Your task to perform on an android device: View the shopping cart on amazon.com. Search for logitech g903 on amazon.com, select the first entry, add it to the cart, then select checkout. Image 0: 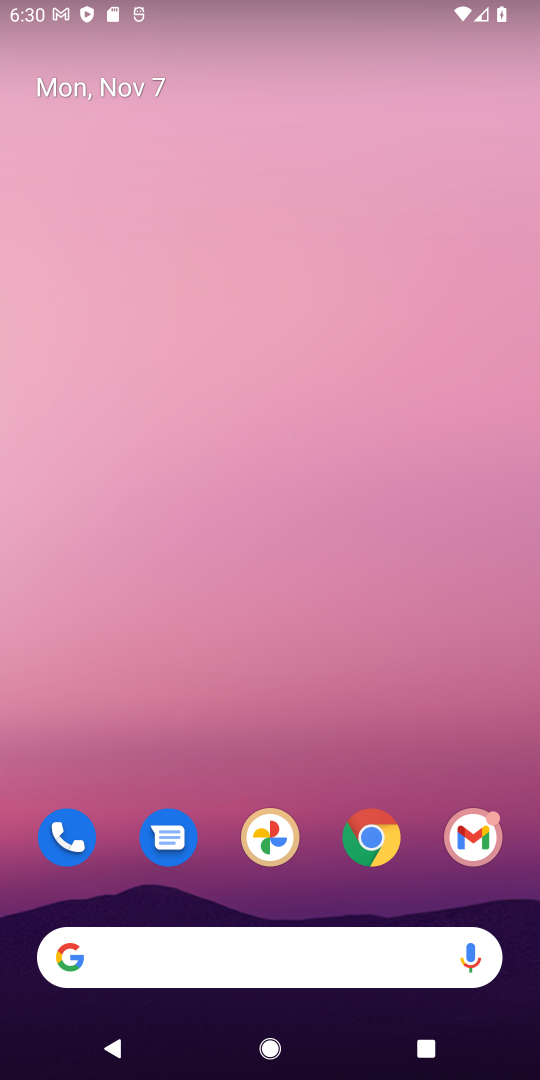
Step 0: click (369, 843)
Your task to perform on an android device: View the shopping cart on amazon.com. Search for logitech g903 on amazon.com, select the first entry, add it to the cart, then select checkout. Image 1: 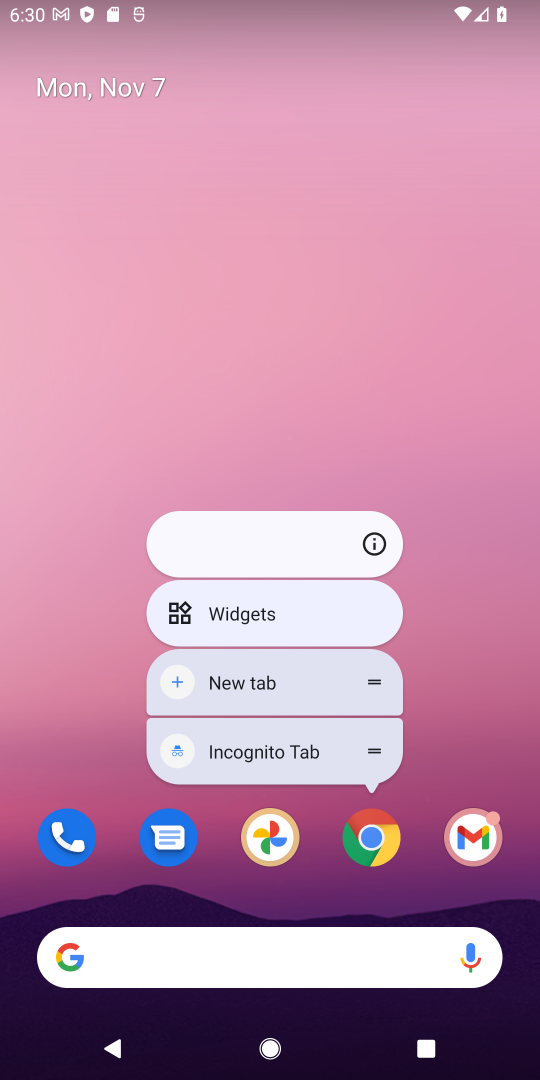
Step 1: click (381, 840)
Your task to perform on an android device: View the shopping cart on amazon.com. Search for logitech g903 on amazon.com, select the first entry, add it to the cart, then select checkout. Image 2: 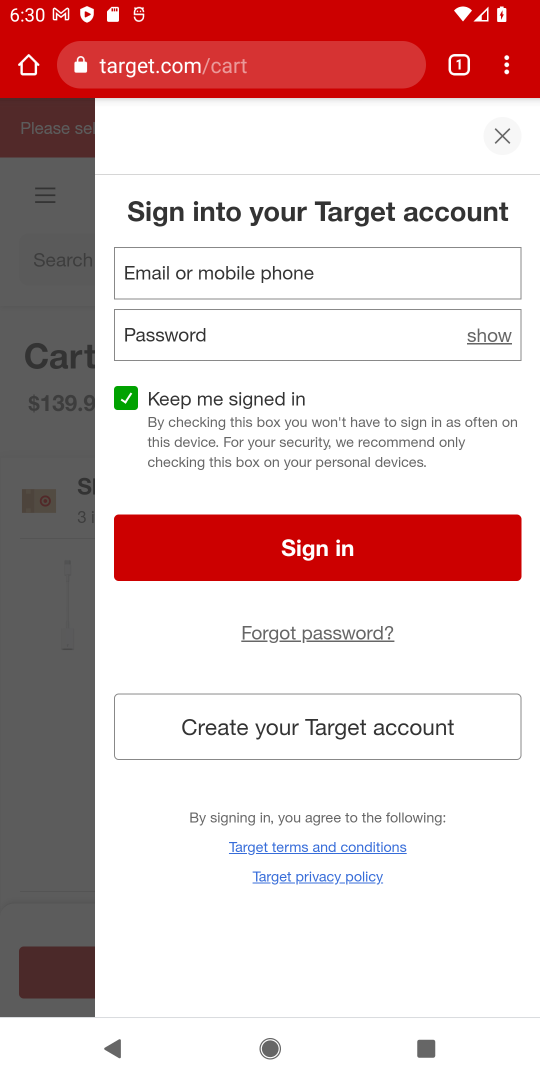
Step 2: click (263, 73)
Your task to perform on an android device: View the shopping cart on amazon.com. Search for logitech g903 on amazon.com, select the first entry, add it to the cart, then select checkout. Image 3: 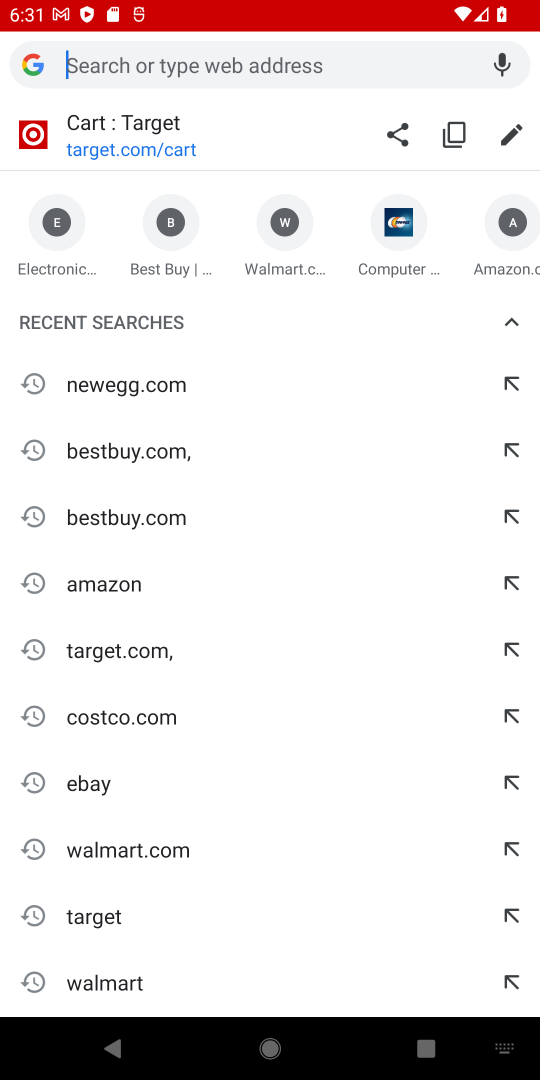
Step 3: type "amazon.com"
Your task to perform on an android device: View the shopping cart on amazon.com. Search for logitech g903 on amazon.com, select the first entry, add it to the cart, then select checkout. Image 4: 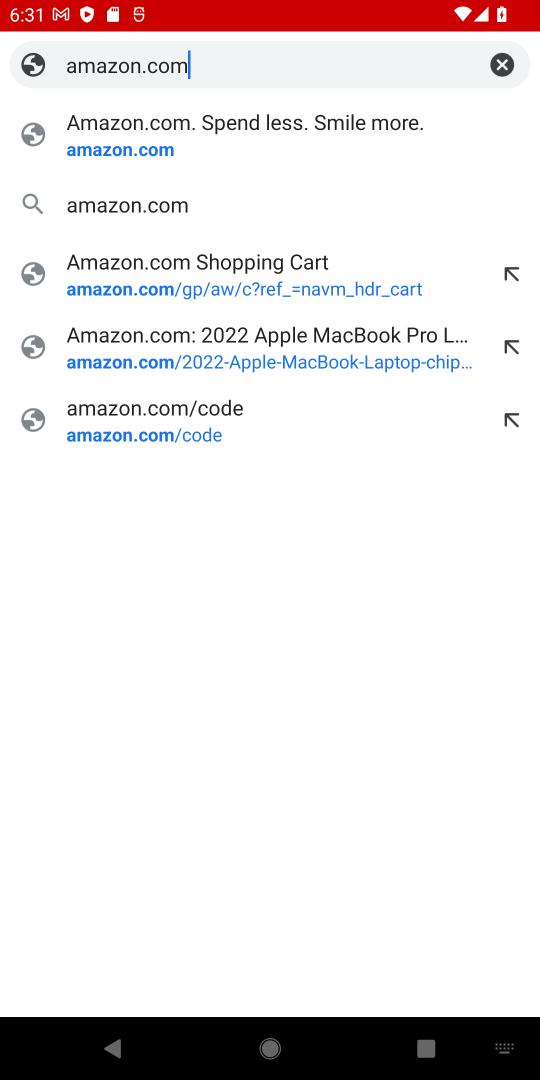
Step 4: click (327, 143)
Your task to perform on an android device: View the shopping cart on amazon.com. Search for logitech g903 on amazon.com, select the first entry, add it to the cart, then select checkout. Image 5: 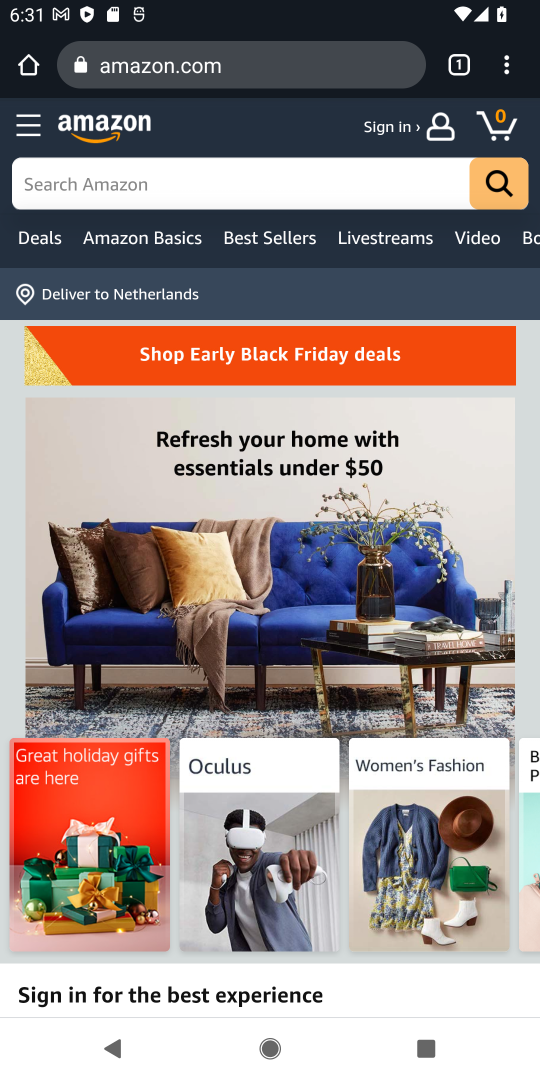
Step 5: click (189, 181)
Your task to perform on an android device: View the shopping cart on amazon.com. Search for logitech g903 on amazon.com, select the first entry, add it to the cart, then select checkout. Image 6: 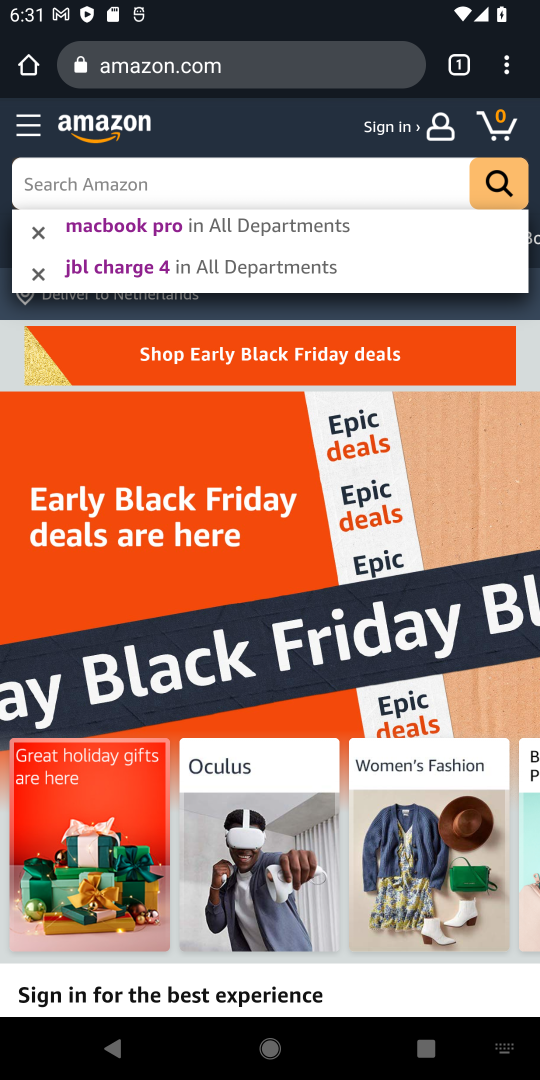
Step 6: type "logitech g903"
Your task to perform on an android device: View the shopping cart on amazon.com. Search for logitech g903 on amazon.com, select the first entry, add it to the cart, then select checkout. Image 7: 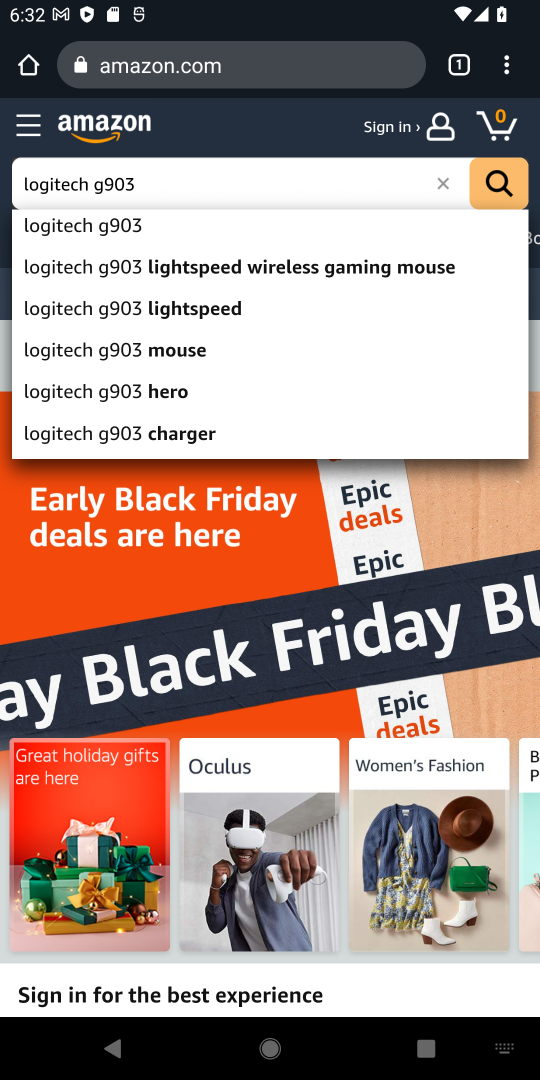
Step 7: click (109, 235)
Your task to perform on an android device: View the shopping cart on amazon.com. Search for logitech g903 on amazon.com, select the first entry, add it to the cart, then select checkout. Image 8: 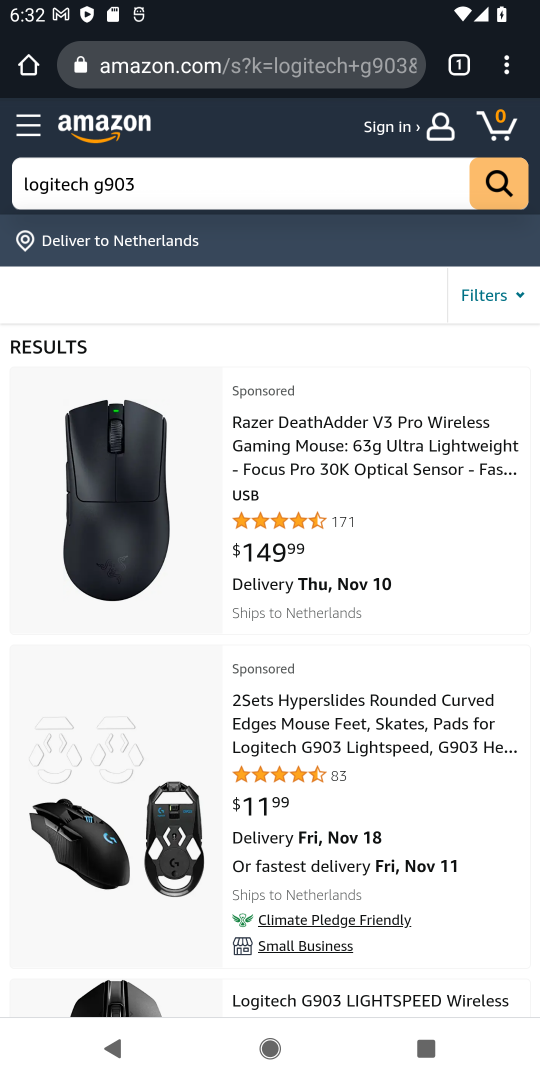
Step 8: click (364, 738)
Your task to perform on an android device: View the shopping cart on amazon.com. Search for logitech g903 on amazon.com, select the first entry, add it to the cart, then select checkout. Image 9: 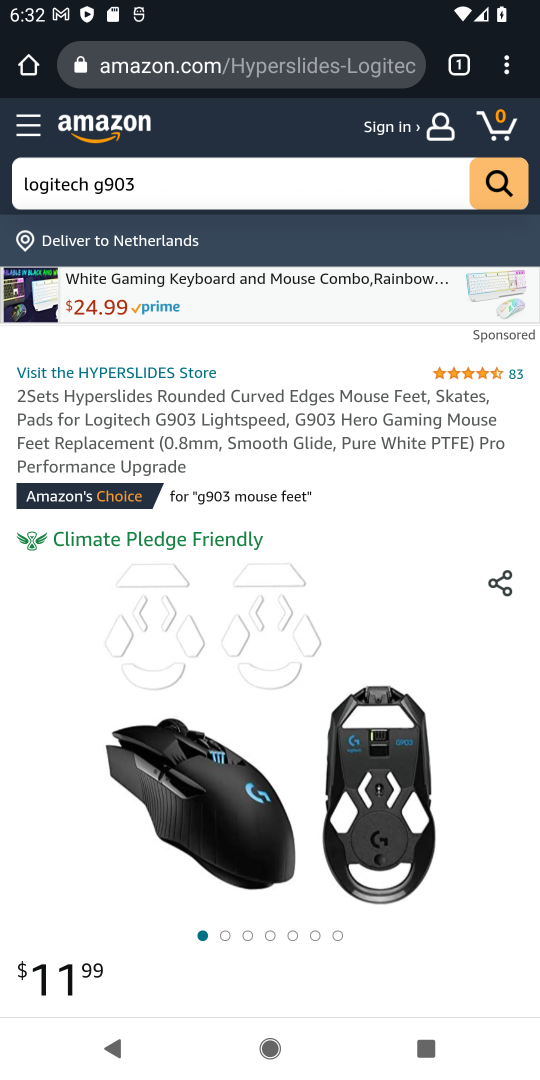
Step 9: drag from (255, 788) to (143, 189)
Your task to perform on an android device: View the shopping cart on amazon.com. Search for logitech g903 on amazon.com, select the first entry, add it to the cart, then select checkout. Image 10: 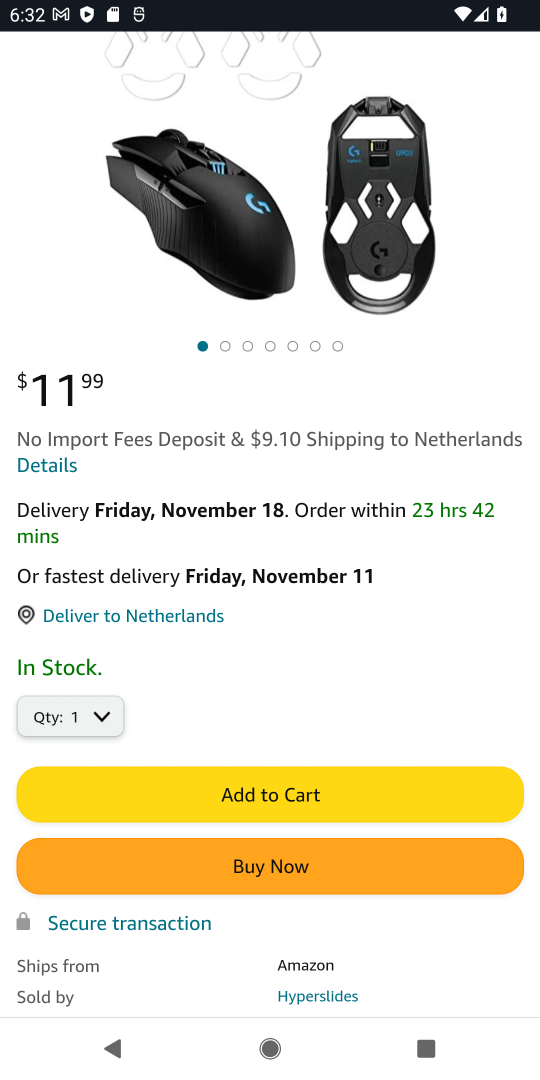
Step 10: click (240, 732)
Your task to perform on an android device: View the shopping cart on amazon.com. Search for logitech g903 on amazon.com, select the first entry, add it to the cart, then select checkout. Image 11: 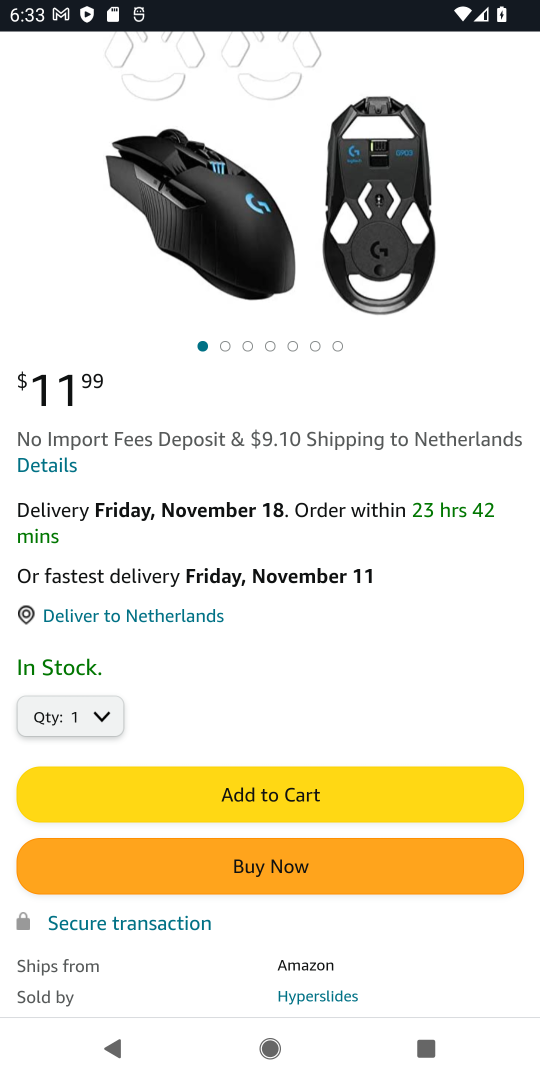
Step 11: click (338, 799)
Your task to perform on an android device: View the shopping cart on amazon.com. Search for logitech g903 on amazon.com, select the first entry, add it to the cart, then select checkout. Image 12: 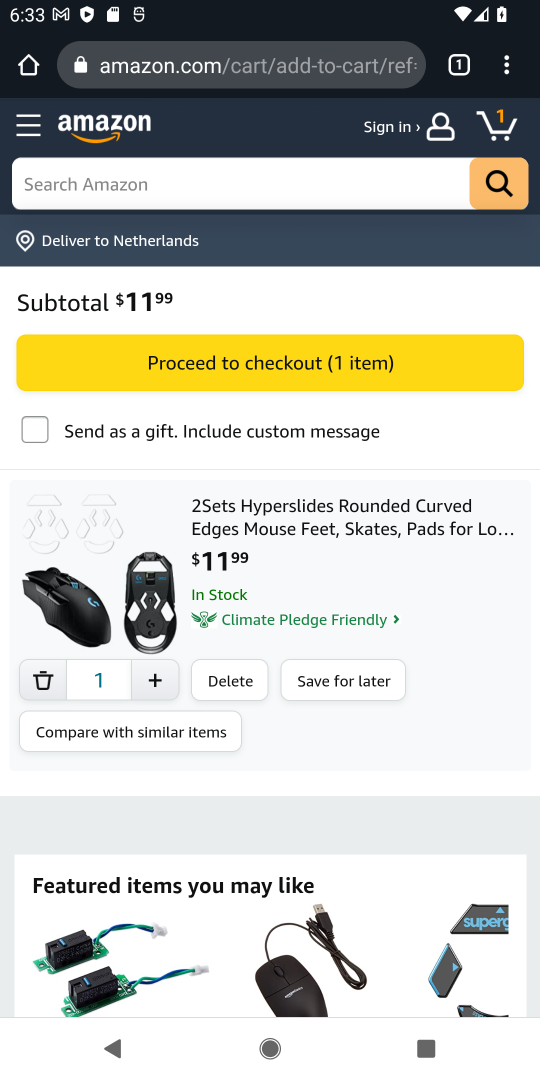
Step 12: click (391, 355)
Your task to perform on an android device: View the shopping cart on amazon.com. Search for logitech g903 on amazon.com, select the first entry, add it to the cart, then select checkout. Image 13: 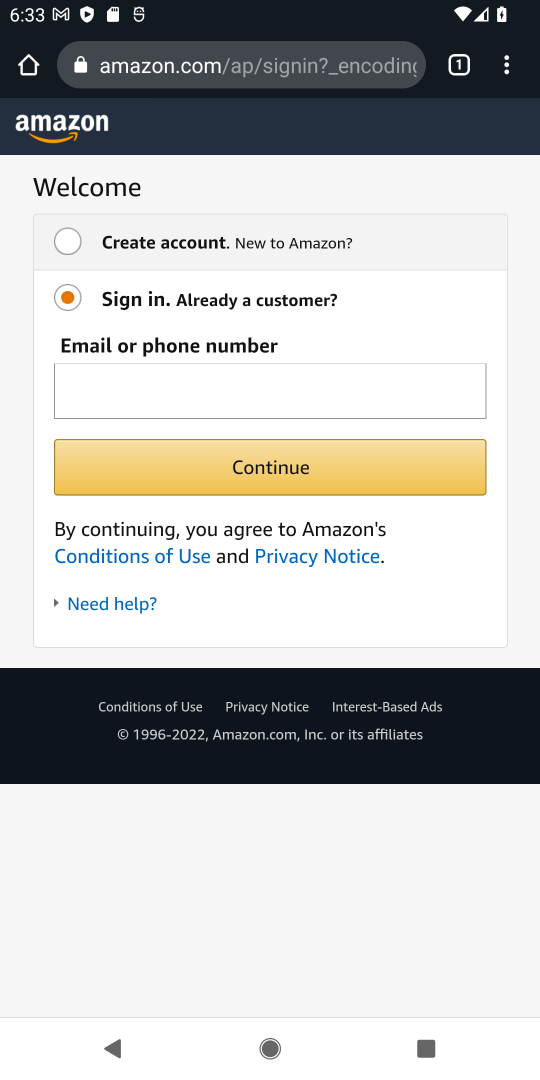
Step 13: task complete